Your task to perform on an android device: Show me the alarms in the clock app Image 0: 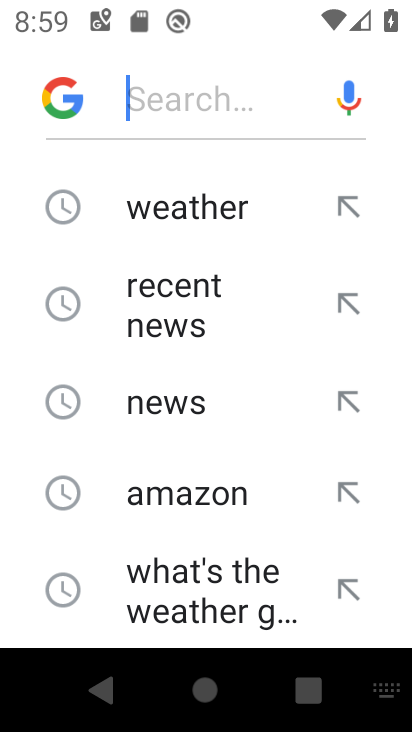
Step 0: press home button
Your task to perform on an android device: Show me the alarms in the clock app Image 1: 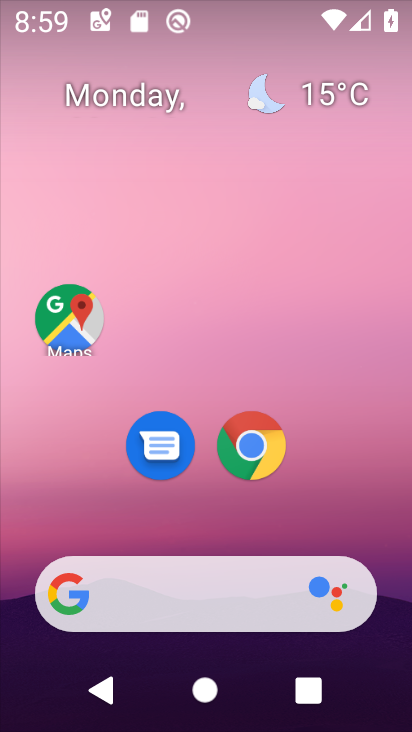
Step 1: drag from (211, 533) to (208, 84)
Your task to perform on an android device: Show me the alarms in the clock app Image 2: 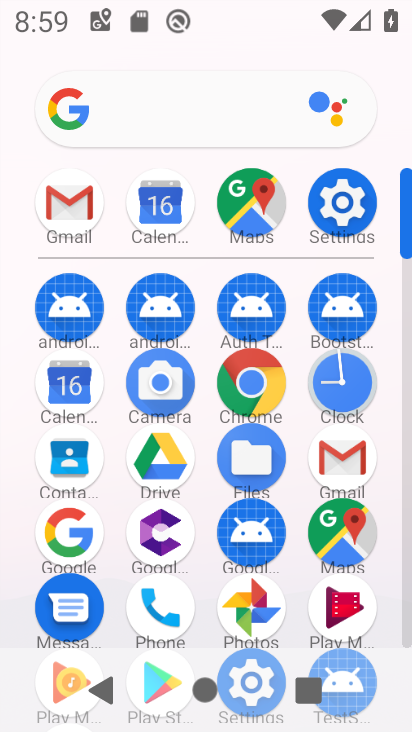
Step 2: click (341, 376)
Your task to perform on an android device: Show me the alarms in the clock app Image 3: 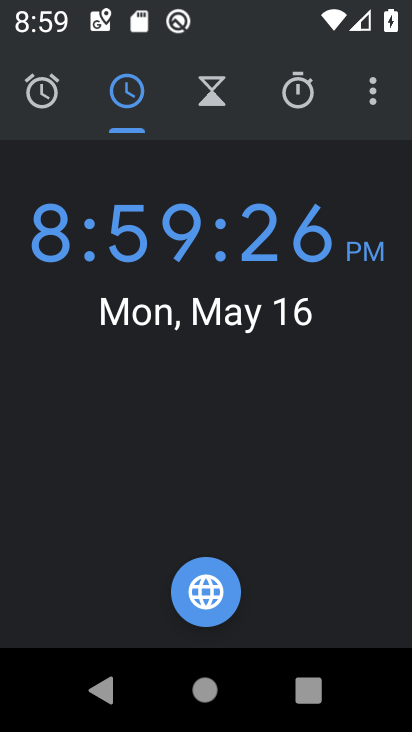
Step 3: click (40, 65)
Your task to perform on an android device: Show me the alarms in the clock app Image 4: 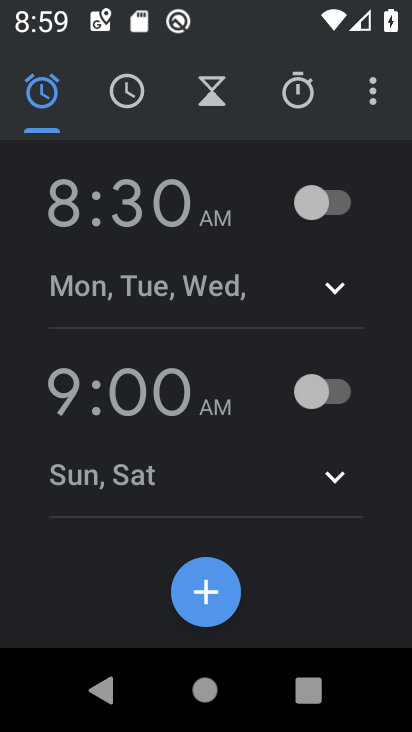
Step 4: task complete